Your task to perform on an android device: Go to location settings Image 0: 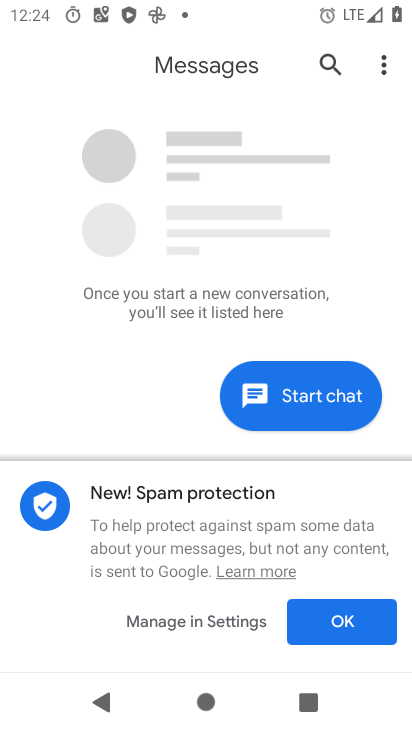
Step 0: press home button
Your task to perform on an android device: Go to location settings Image 1: 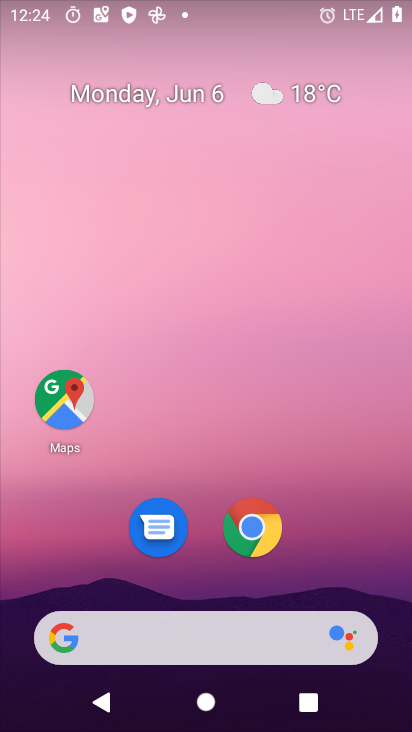
Step 1: drag from (341, 546) to (200, 0)
Your task to perform on an android device: Go to location settings Image 2: 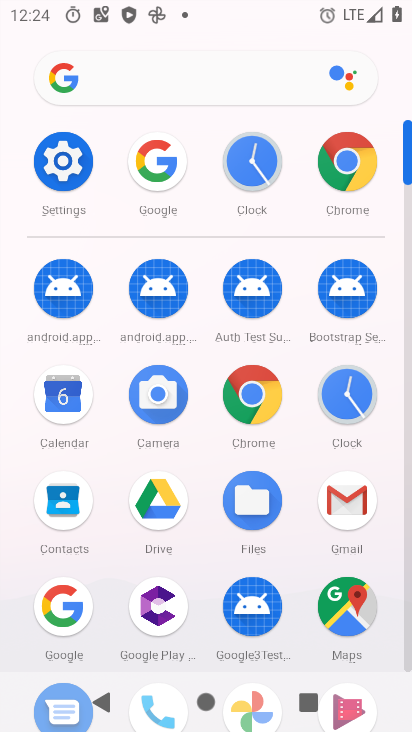
Step 2: click (60, 151)
Your task to perform on an android device: Go to location settings Image 3: 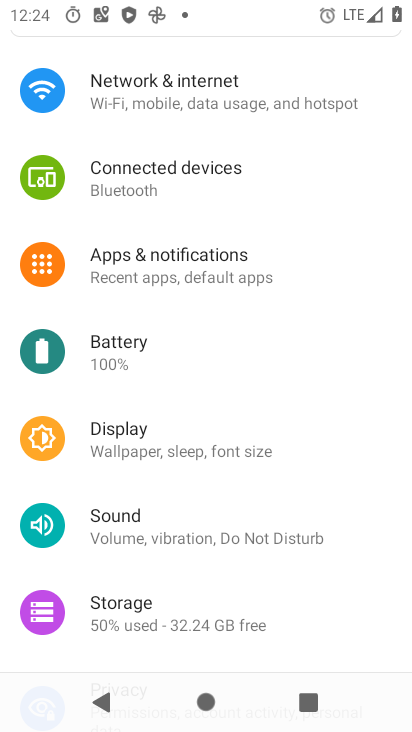
Step 3: drag from (154, 565) to (211, 223)
Your task to perform on an android device: Go to location settings Image 4: 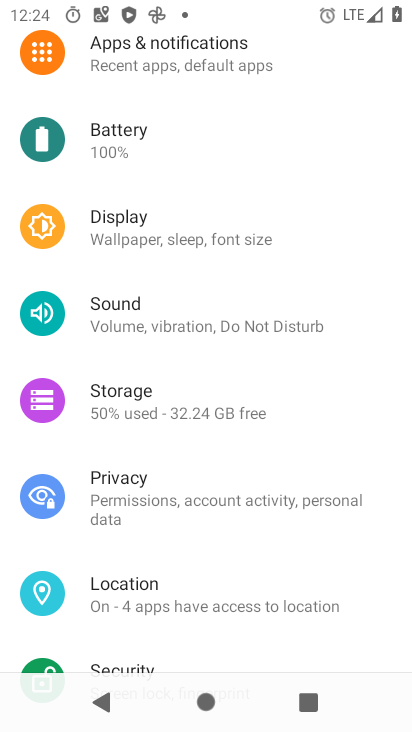
Step 4: click (179, 597)
Your task to perform on an android device: Go to location settings Image 5: 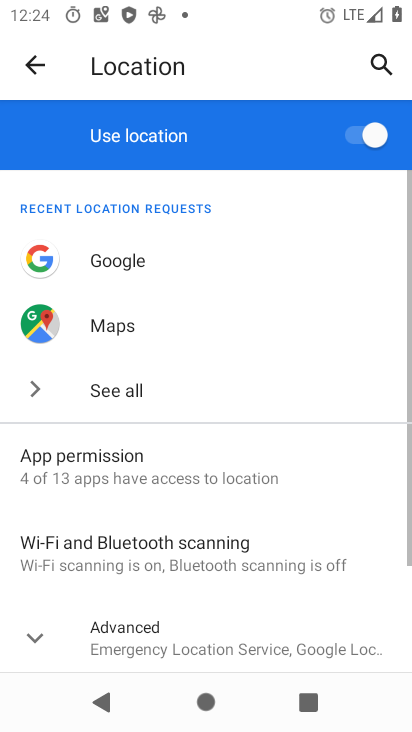
Step 5: task complete